Your task to perform on an android device: Do I have any events this weekend? Image 0: 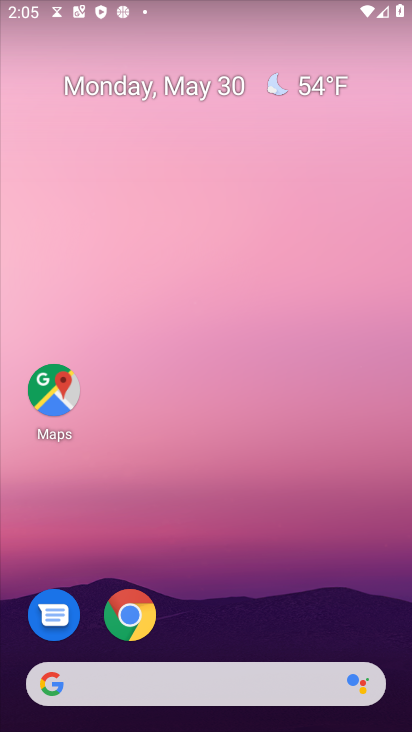
Step 0: drag from (316, 622) to (360, 82)
Your task to perform on an android device: Do I have any events this weekend? Image 1: 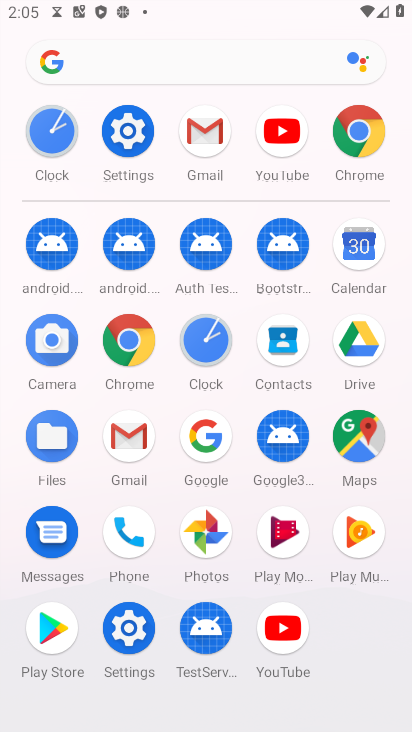
Step 1: click (366, 246)
Your task to perform on an android device: Do I have any events this weekend? Image 2: 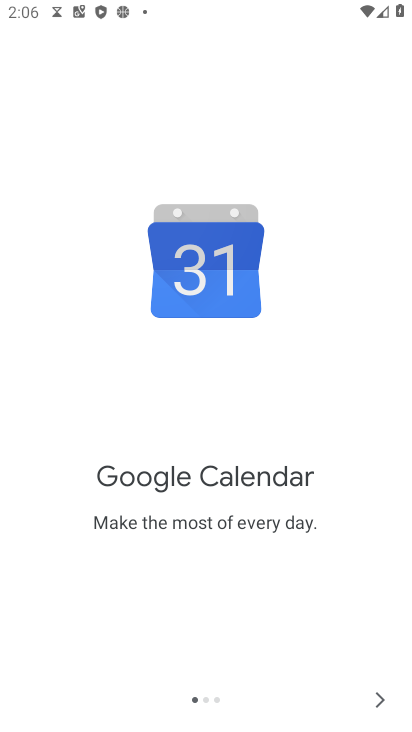
Step 2: click (384, 709)
Your task to perform on an android device: Do I have any events this weekend? Image 3: 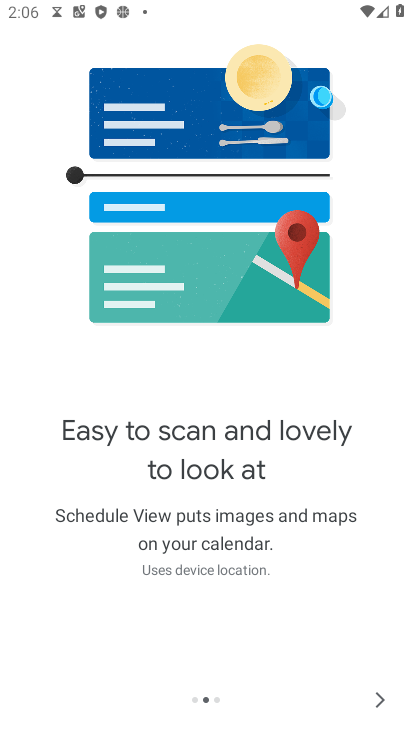
Step 3: click (382, 707)
Your task to perform on an android device: Do I have any events this weekend? Image 4: 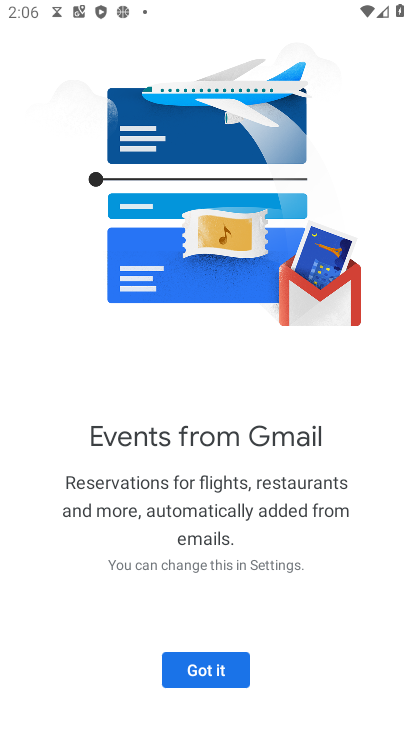
Step 4: click (220, 671)
Your task to perform on an android device: Do I have any events this weekend? Image 5: 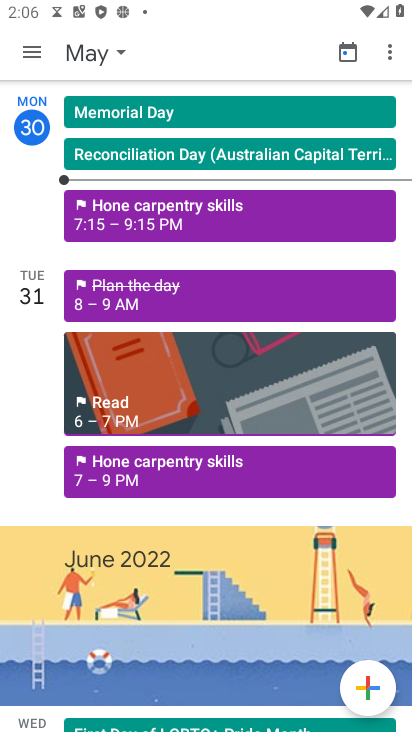
Step 5: click (102, 63)
Your task to perform on an android device: Do I have any events this weekend? Image 6: 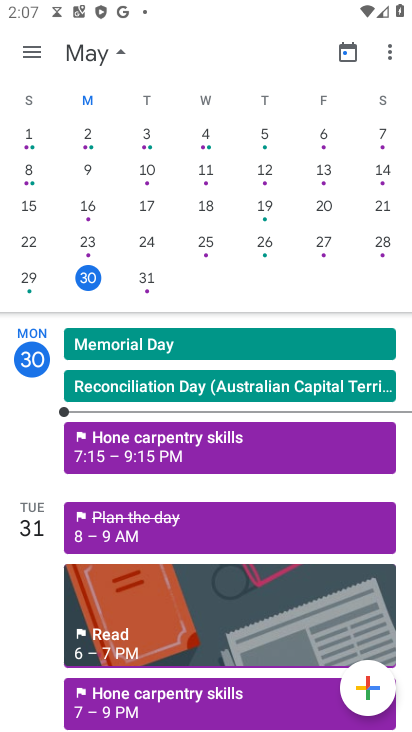
Step 6: click (143, 284)
Your task to perform on an android device: Do I have any events this weekend? Image 7: 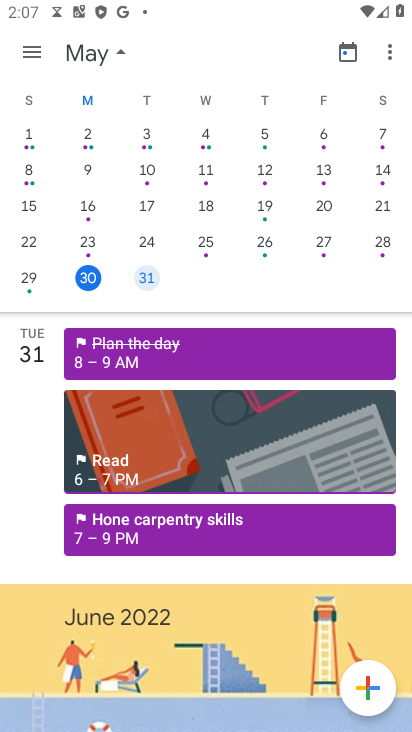
Step 7: task complete